Your task to perform on an android device: Open Google Image 0: 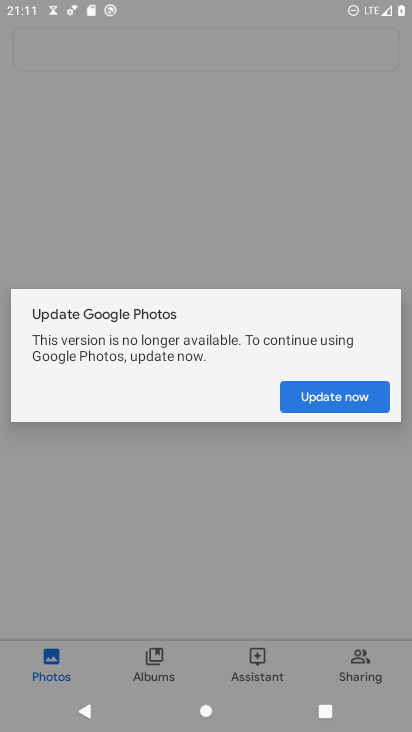
Step 0: press home button
Your task to perform on an android device: Open Google Image 1: 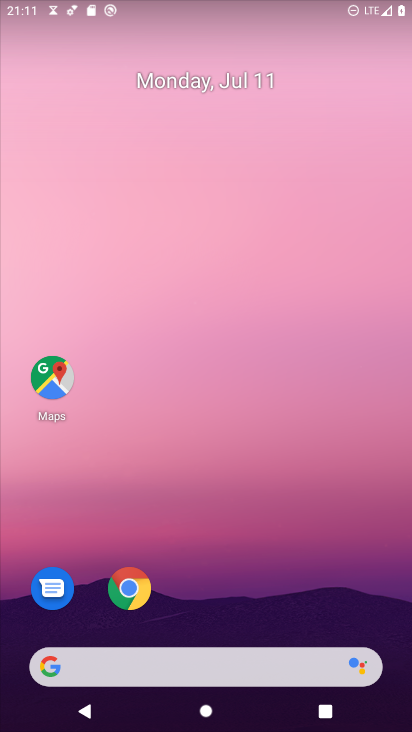
Step 1: click (49, 672)
Your task to perform on an android device: Open Google Image 2: 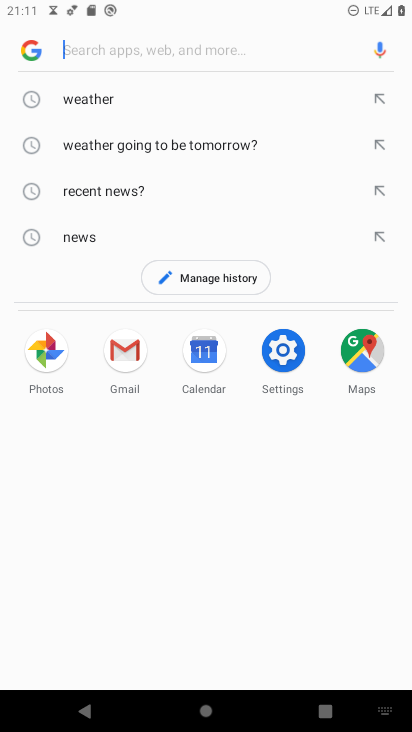
Step 2: task complete